Your task to perform on an android device: What's on my calendar tomorrow? Image 0: 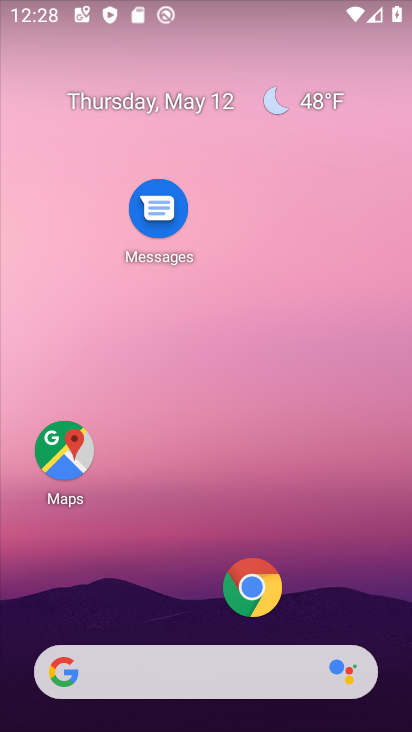
Step 0: drag from (202, 636) to (155, 36)
Your task to perform on an android device: What's on my calendar tomorrow? Image 1: 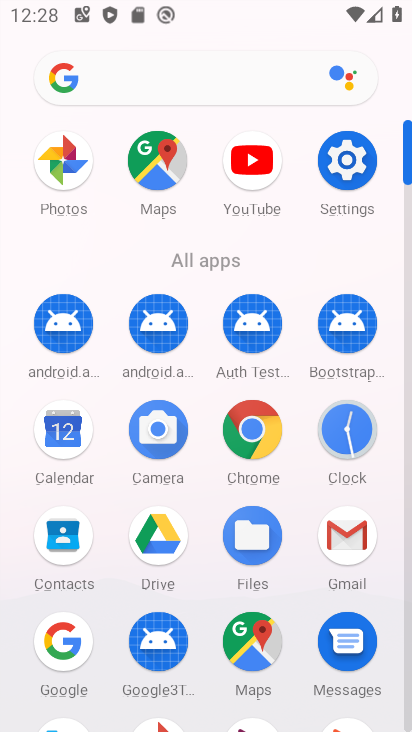
Step 1: click (64, 442)
Your task to perform on an android device: What's on my calendar tomorrow? Image 2: 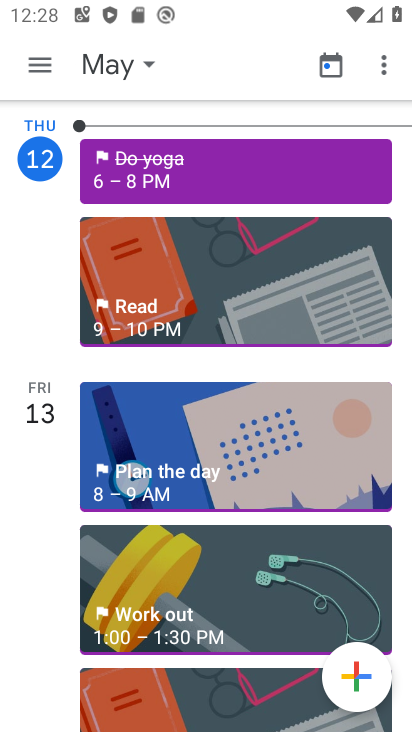
Step 2: click (46, 74)
Your task to perform on an android device: What's on my calendar tomorrow? Image 3: 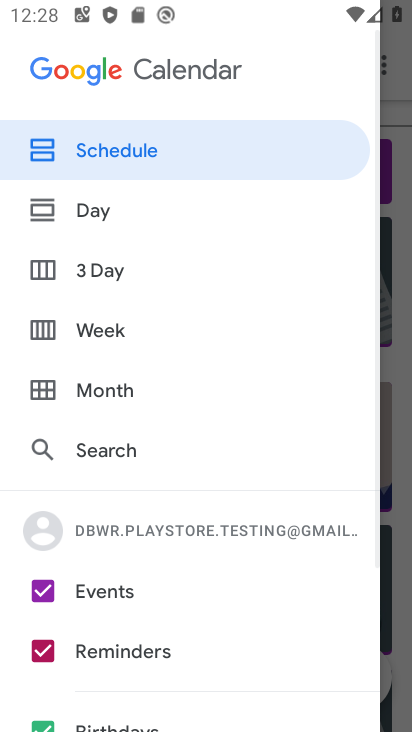
Step 3: click (109, 315)
Your task to perform on an android device: What's on my calendar tomorrow? Image 4: 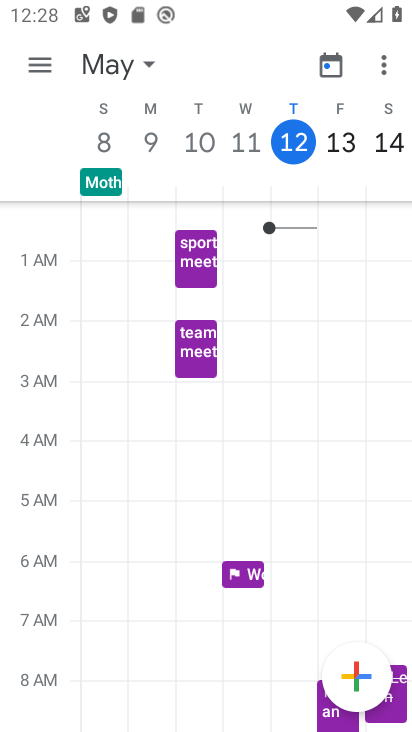
Step 4: click (324, 144)
Your task to perform on an android device: What's on my calendar tomorrow? Image 5: 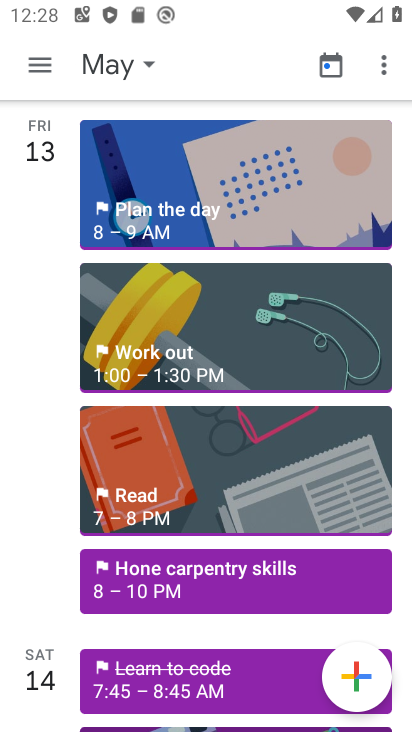
Step 5: task complete